Your task to perform on an android device: Is it going to rain today? Image 0: 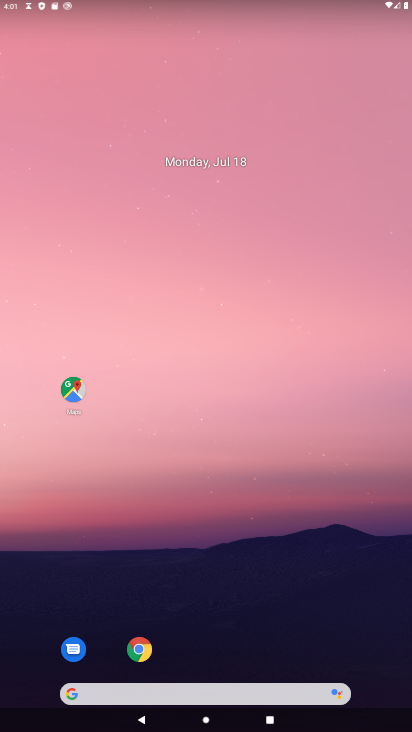
Step 0: press home button
Your task to perform on an android device: Is it going to rain today? Image 1: 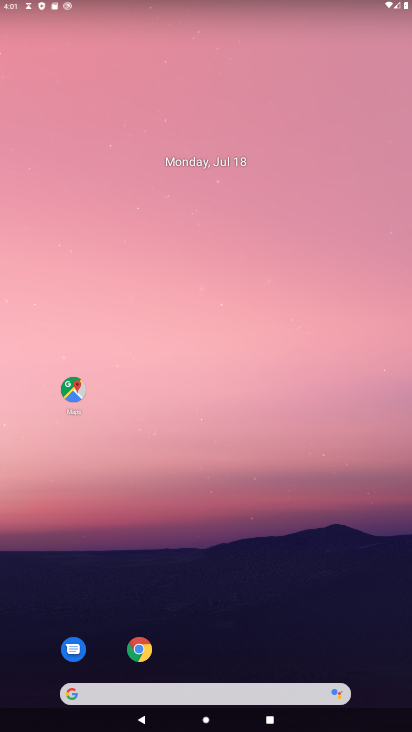
Step 1: click (74, 690)
Your task to perform on an android device: Is it going to rain today? Image 2: 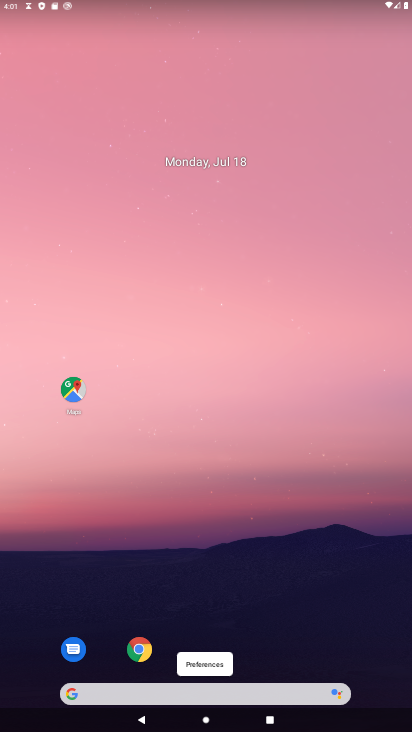
Step 2: click (73, 692)
Your task to perform on an android device: Is it going to rain today? Image 3: 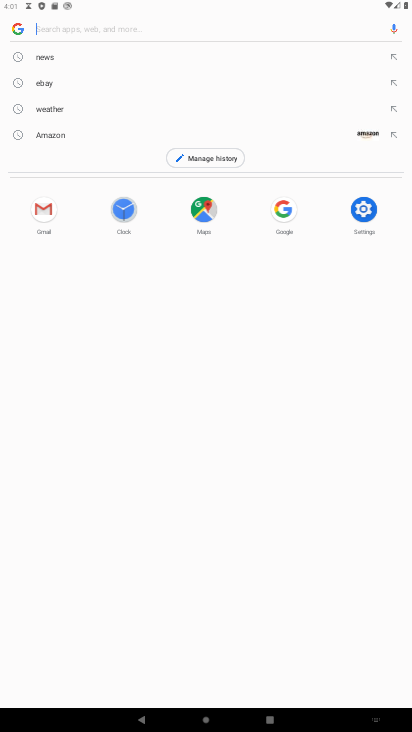
Step 3: type "Is it going to rain today"
Your task to perform on an android device: Is it going to rain today? Image 4: 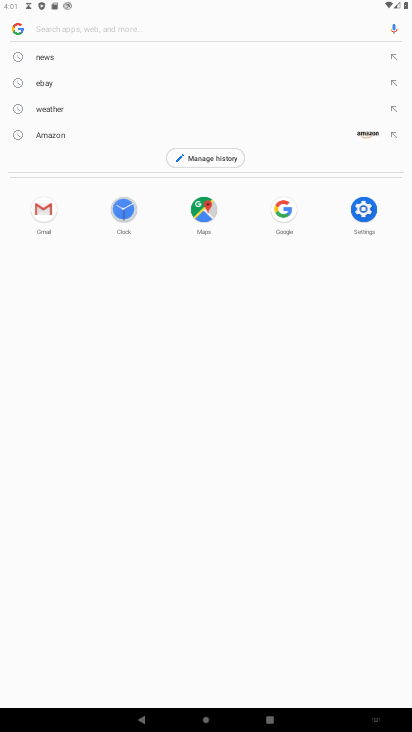
Step 4: click (55, 28)
Your task to perform on an android device: Is it going to rain today? Image 5: 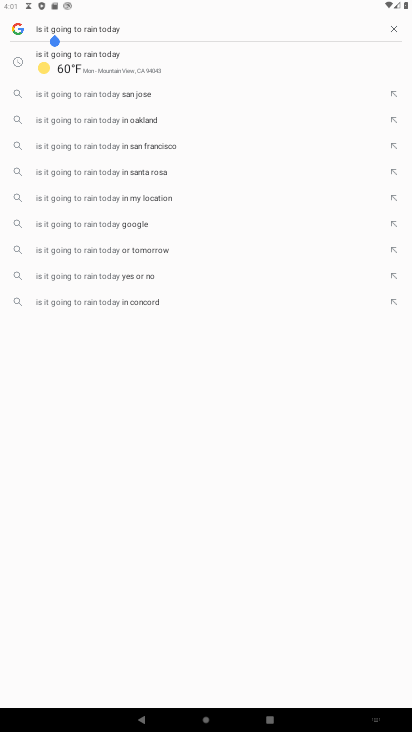
Step 5: press enter
Your task to perform on an android device: Is it going to rain today? Image 6: 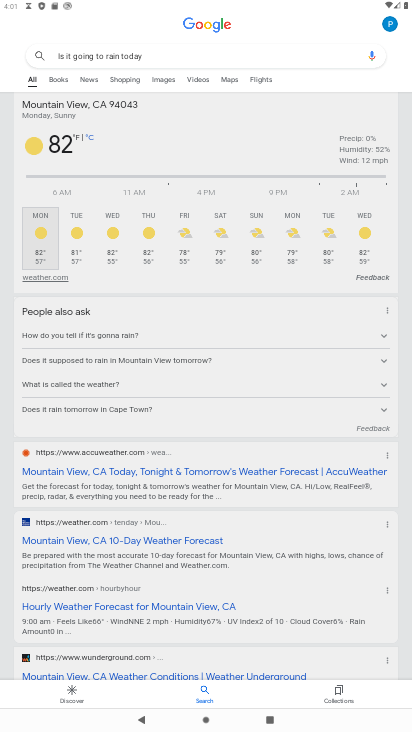
Step 6: task complete